Your task to perform on an android device: change alarm snooze length Image 0: 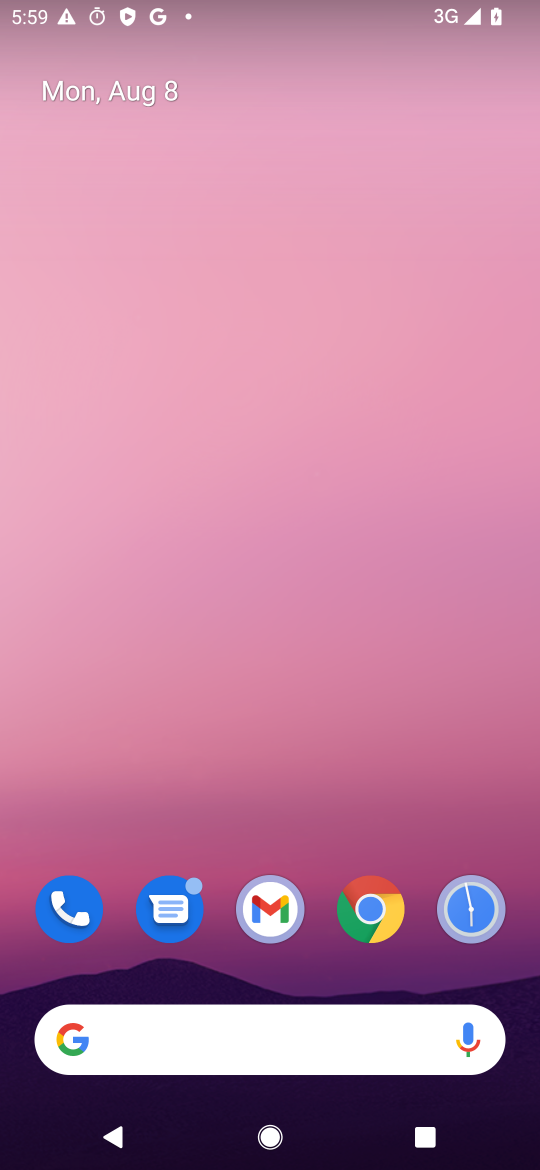
Step 0: click (473, 921)
Your task to perform on an android device: change alarm snooze length Image 1: 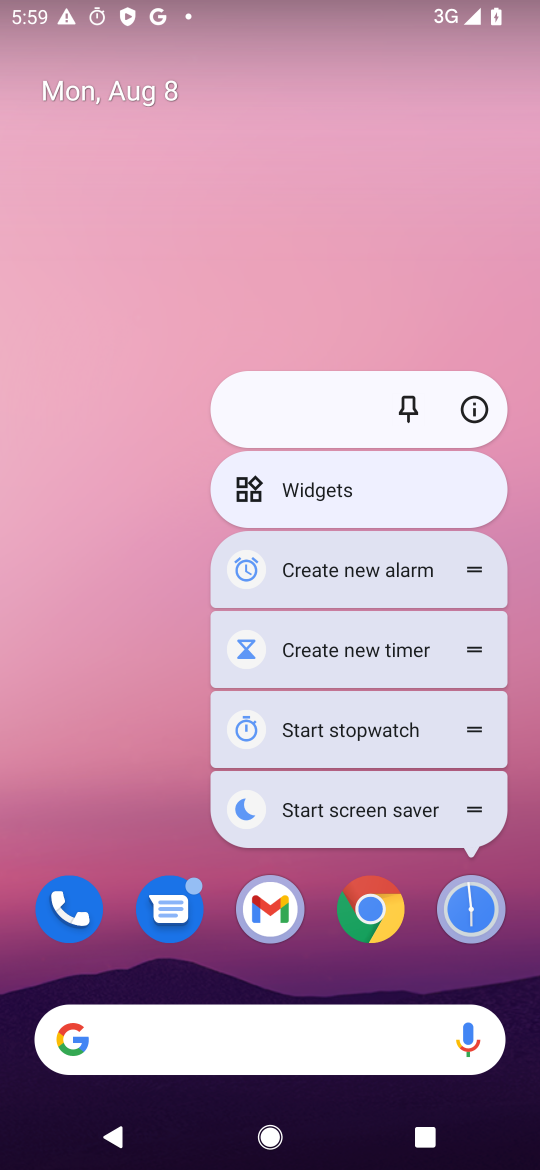
Step 1: click (470, 905)
Your task to perform on an android device: change alarm snooze length Image 2: 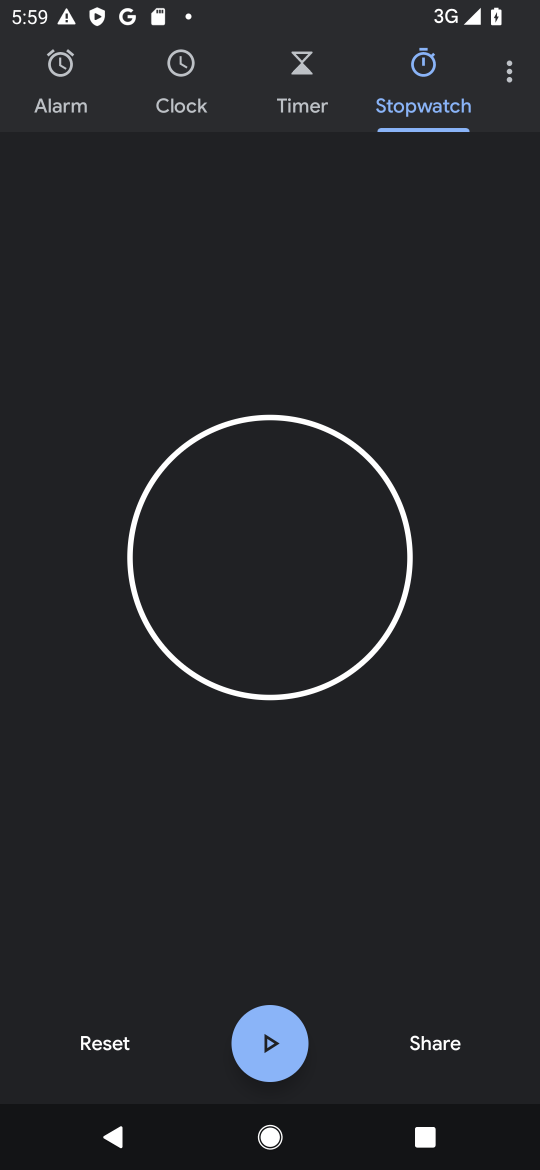
Step 2: click (503, 71)
Your task to perform on an android device: change alarm snooze length Image 3: 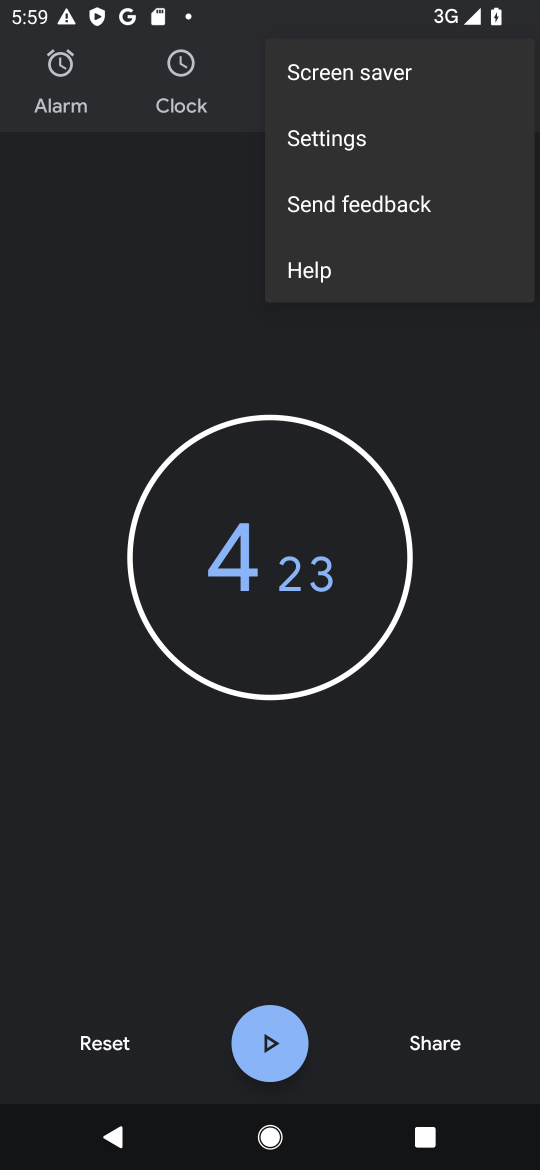
Step 3: click (330, 143)
Your task to perform on an android device: change alarm snooze length Image 4: 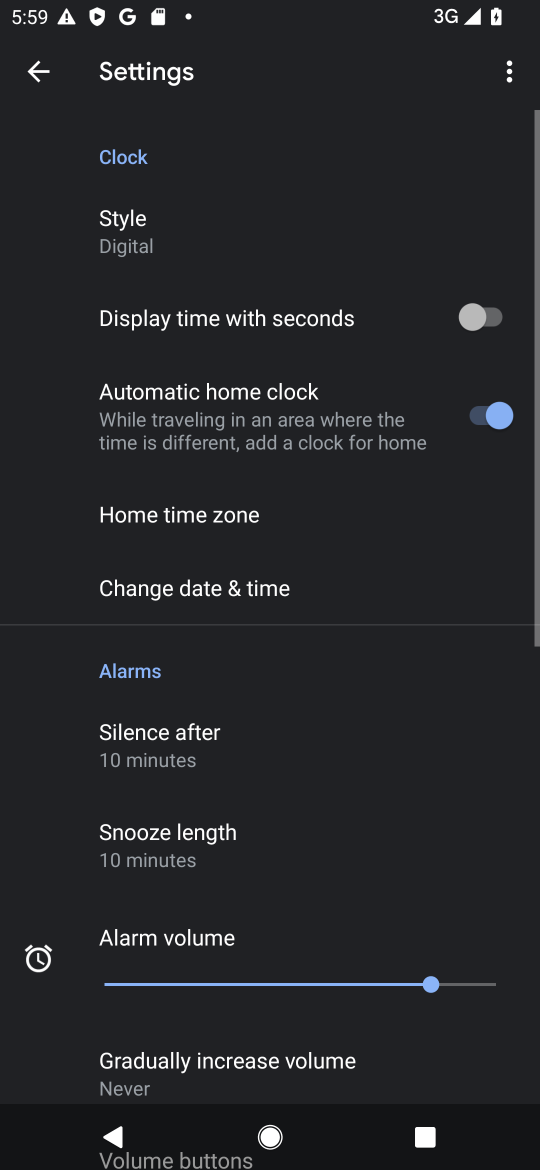
Step 4: click (210, 845)
Your task to perform on an android device: change alarm snooze length Image 5: 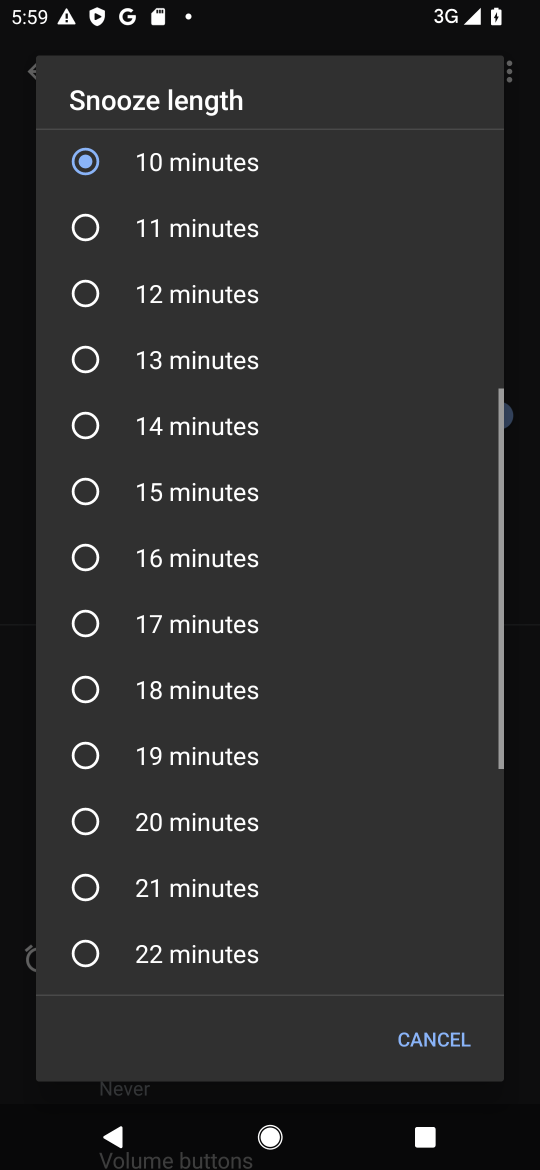
Step 5: click (88, 486)
Your task to perform on an android device: change alarm snooze length Image 6: 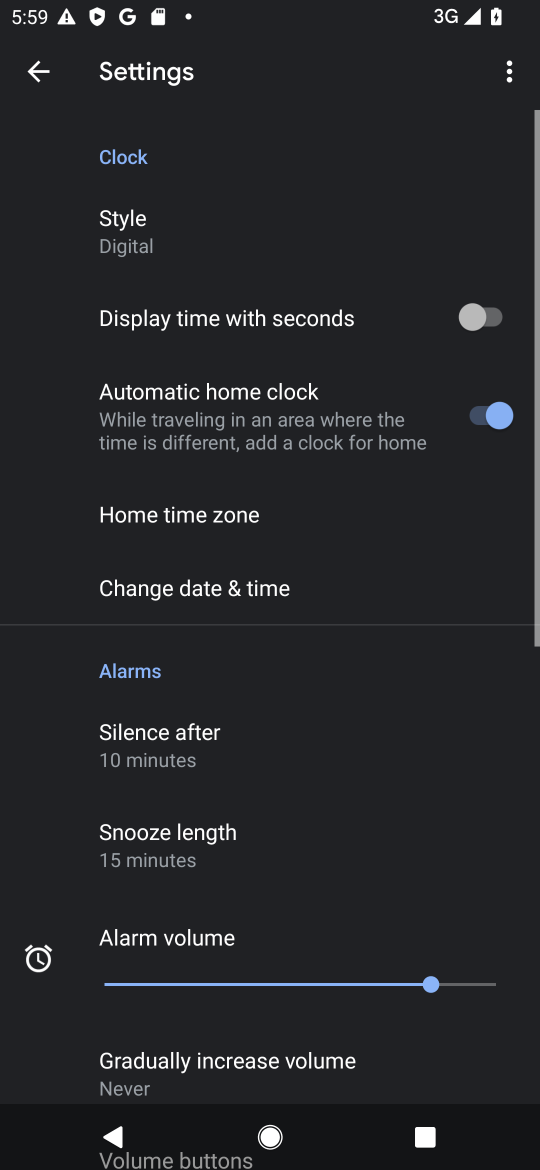
Step 6: task complete